Your task to perform on an android device: turn on the 12-hour format for clock Image 0: 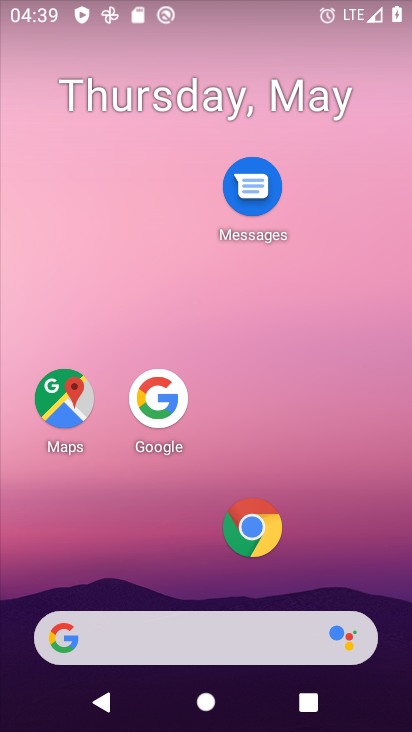
Step 0: drag from (200, 601) to (206, 174)
Your task to perform on an android device: turn on the 12-hour format for clock Image 1: 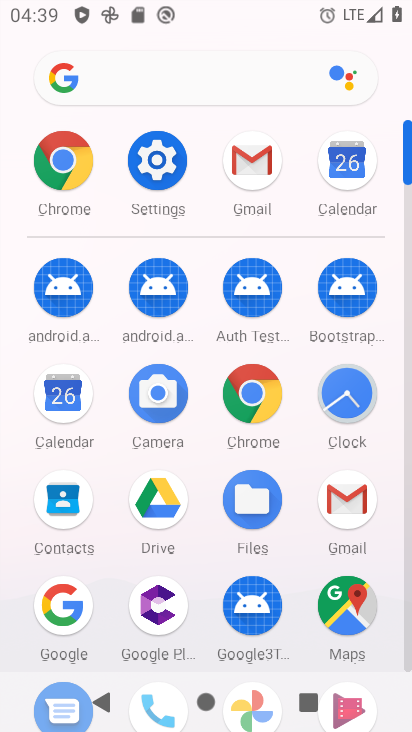
Step 1: click (348, 397)
Your task to perform on an android device: turn on the 12-hour format for clock Image 2: 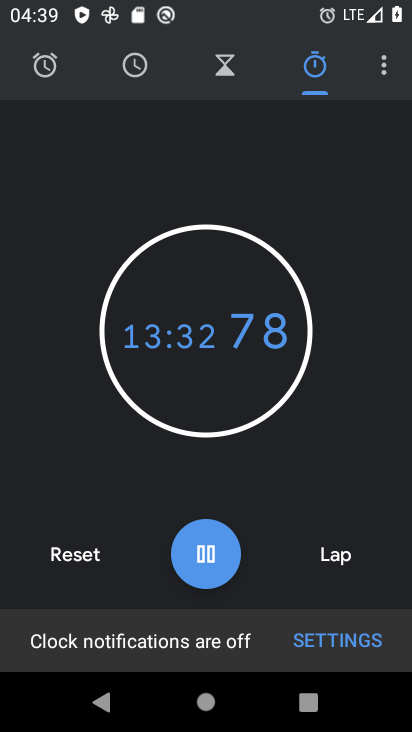
Step 2: click (383, 75)
Your task to perform on an android device: turn on the 12-hour format for clock Image 3: 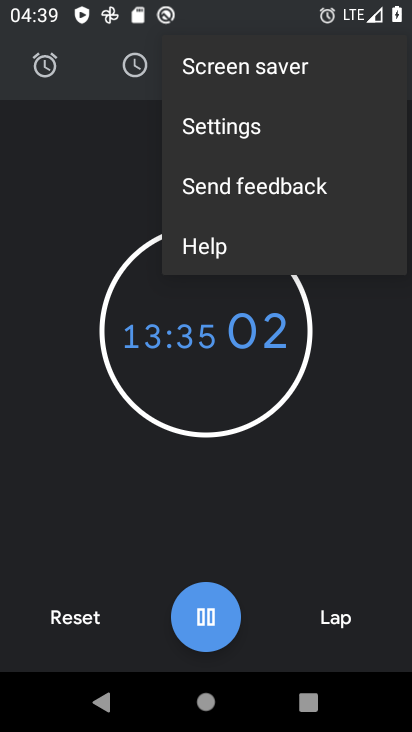
Step 3: click (258, 142)
Your task to perform on an android device: turn on the 12-hour format for clock Image 4: 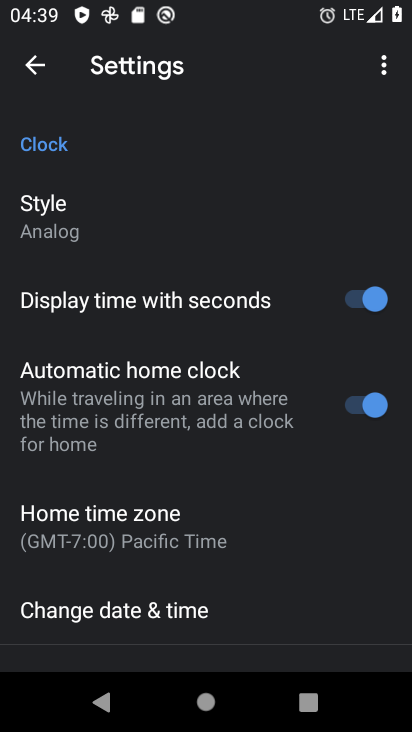
Step 4: click (156, 597)
Your task to perform on an android device: turn on the 12-hour format for clock Image 5: 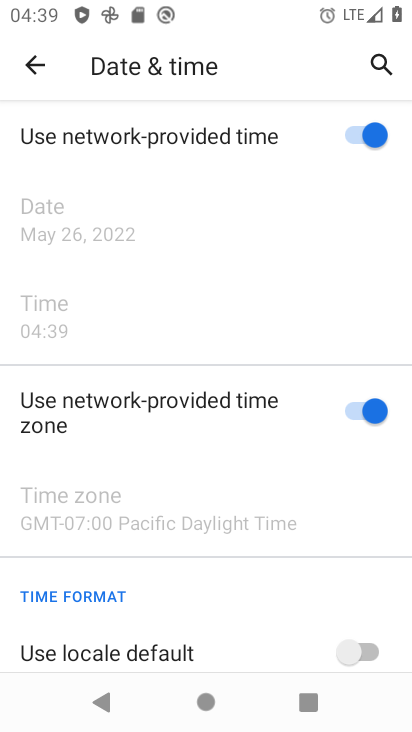
Step 5: drag from (211, 616) to (283, 208)
Your task to perform on an android device: turn on the 12-hour format for clock Image 6: 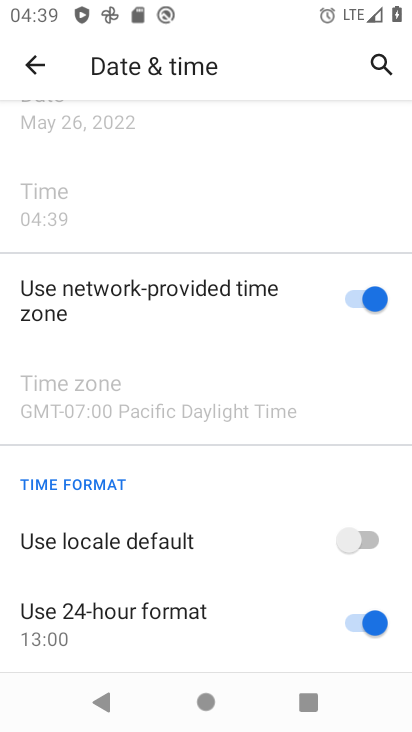
Step 6: click (365, 626)
Your task to perform on an android device: turn on the 12-hour format for clock Image 7: 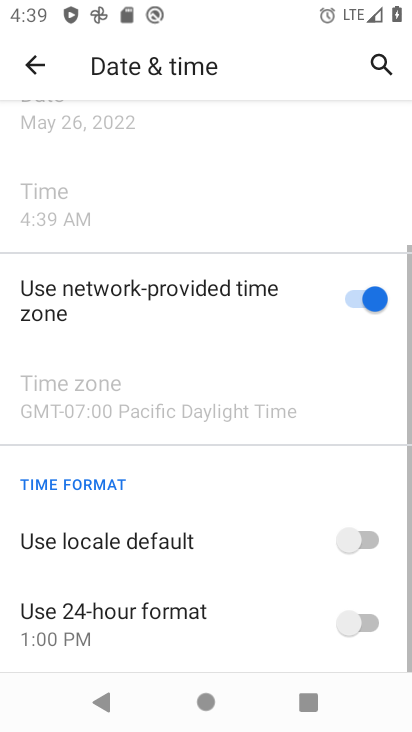
Step 7: task complete